Your task to perform on an android device: open sync settings in chrome Image 0: 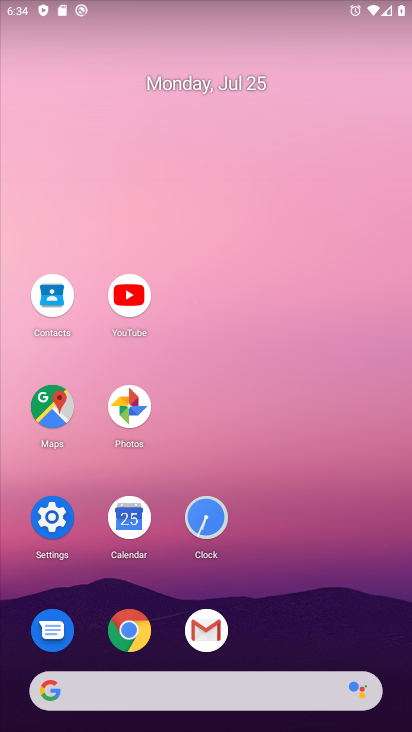
Step 0: click (125, 631)
Your task to perform on an android device: open sync settings in chrome Image 1: 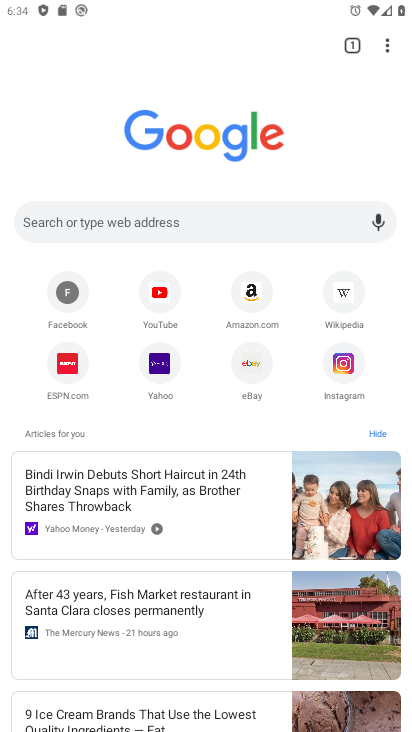
Step 1: click (387, 45)
Your task to perform on an android device: open sync settings in chrome Image 2: 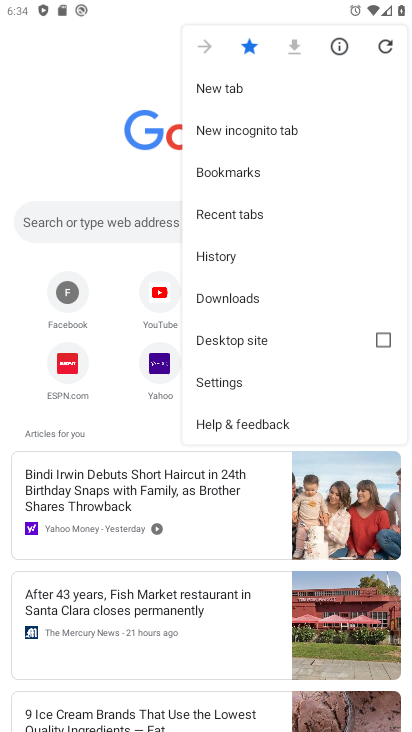
Step 2: click (213, 379)
Your task to perform on an android device: open sync settings in chrome Image 3: 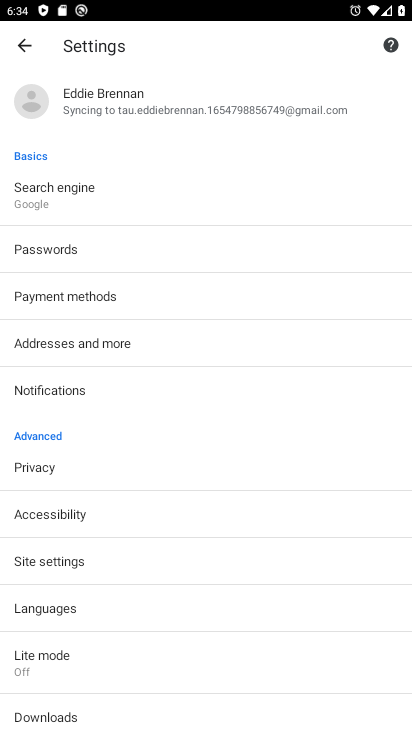
Step 3: click (110, 97)
Your task to perform on an android device: open sync settings in chrome Image 4: 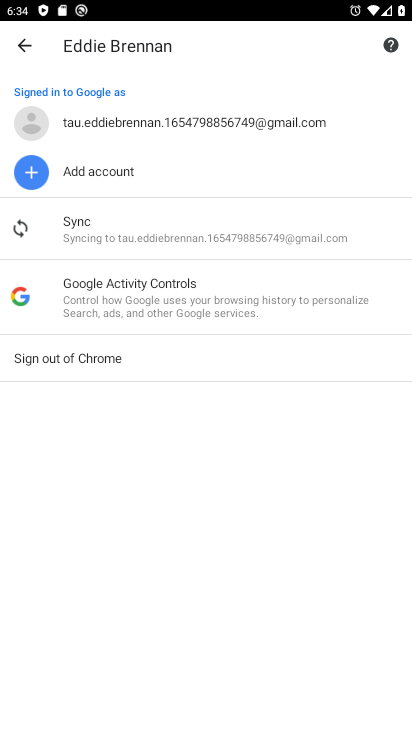
Step 4: task complete